Your task to perform on an android device: Open Google Chrome Image 0: 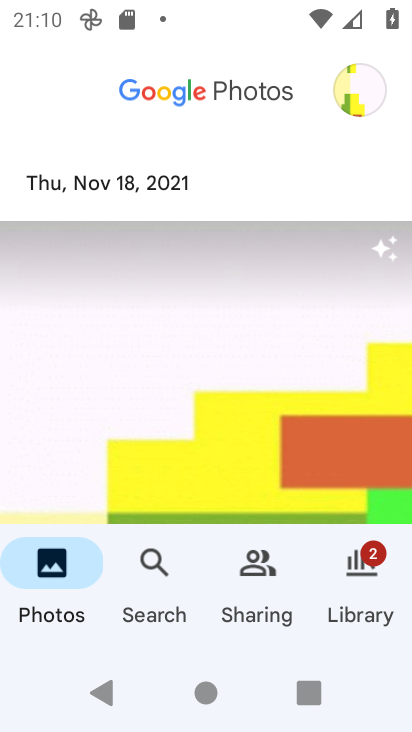
Step 0: press home button
Your task to perform on an android device: Open Google Chrome Image 1: 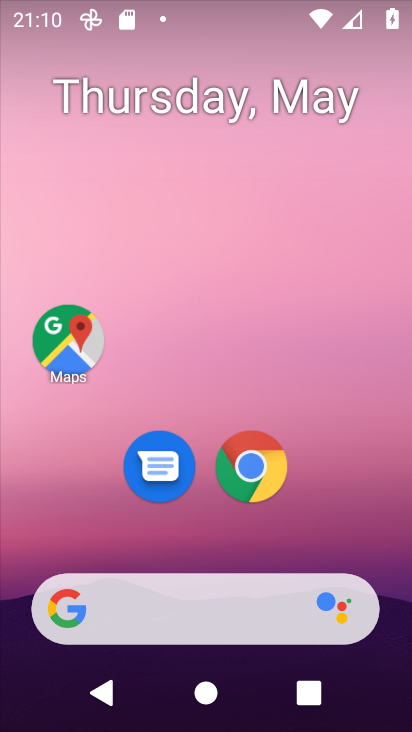
Step 1: click (270, 477)
Your task to perform on an android device: Open Google Chrome Image 2: 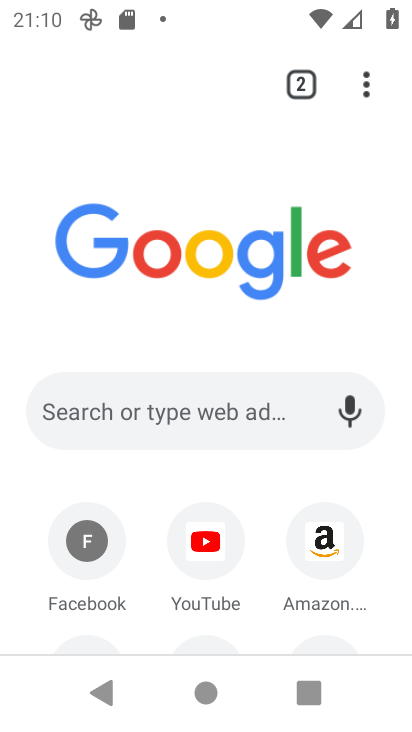
Step 2: click (163, 402)
Your task to perform on an android device: Open Google Chrome Image 3: 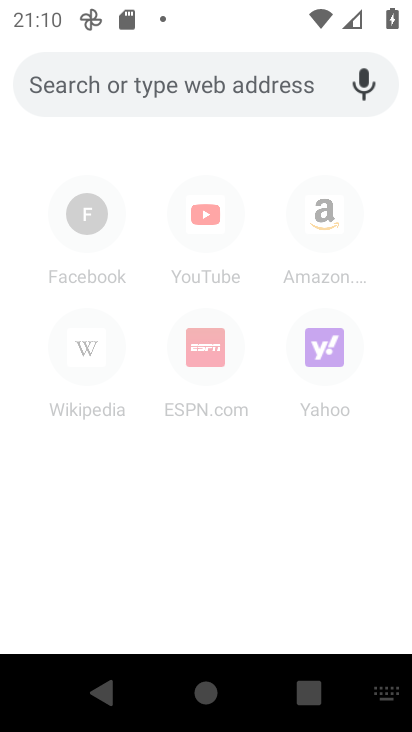
Step 3: task complete